Your task to perform on an android device: Go to network settings Image 0: 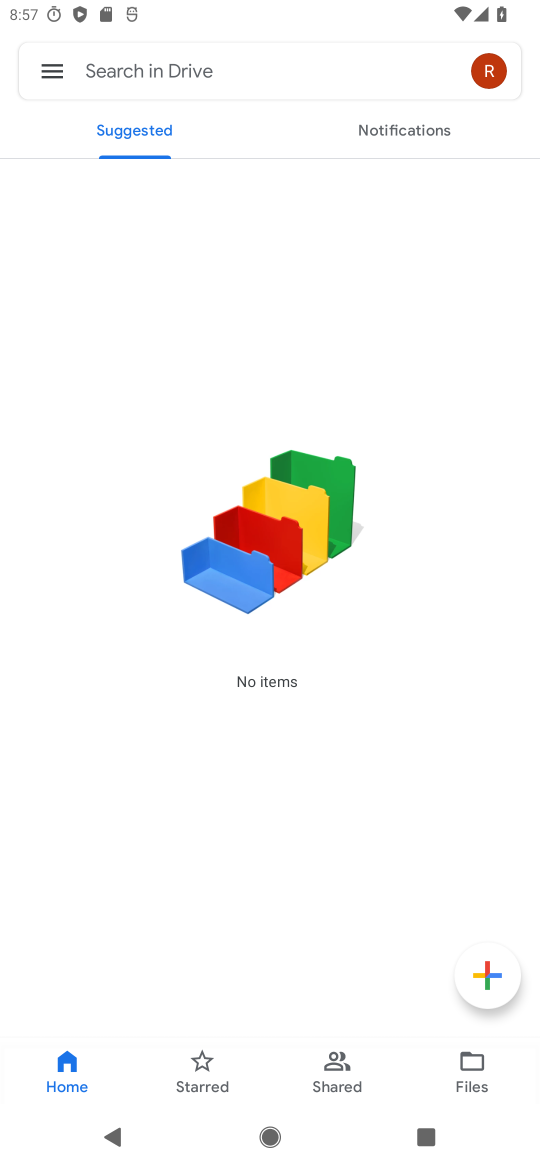
Step 0: press home button
Your task to perform on an android device: Go to network settings Image 1: 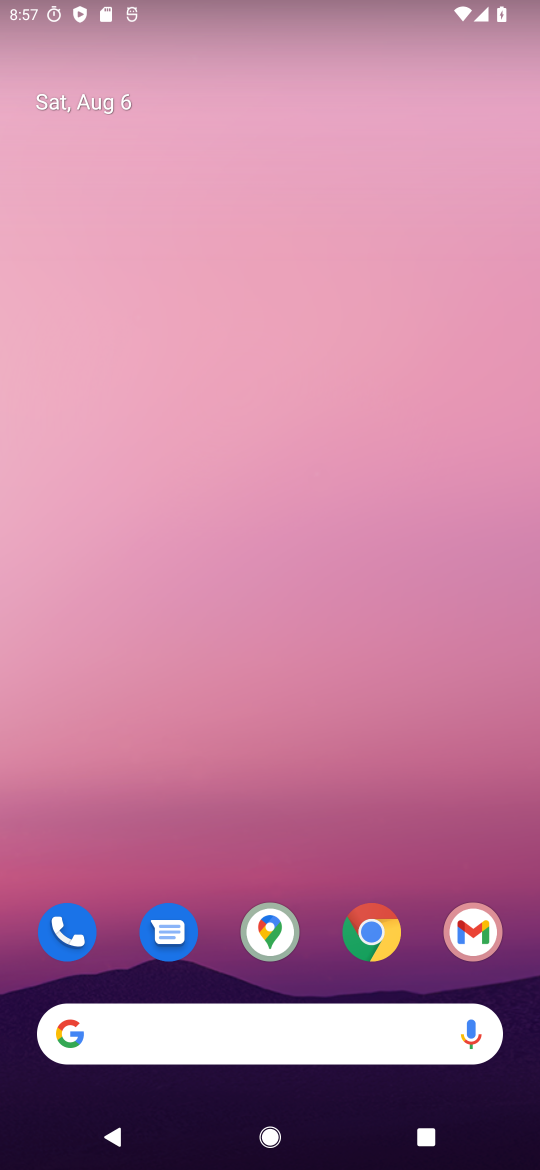
Step 1: drag from (293, 909) to (496, 131)
Your task to perform on an android device: Go to network settings Image 2: 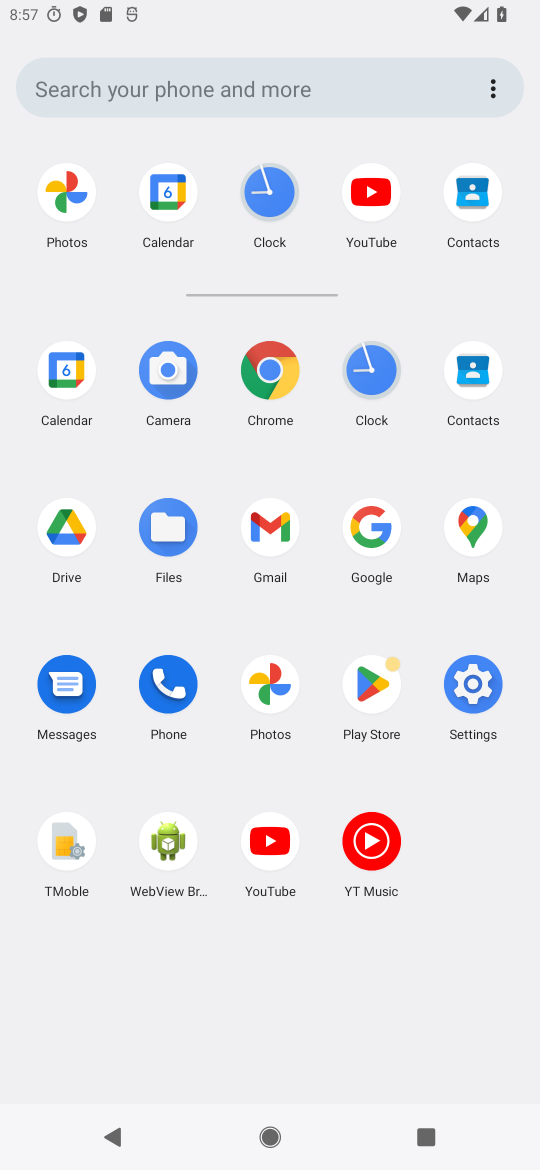
Step 2: click (466, 685)
Your task to perform on an android device: Go to network settings Image 3: 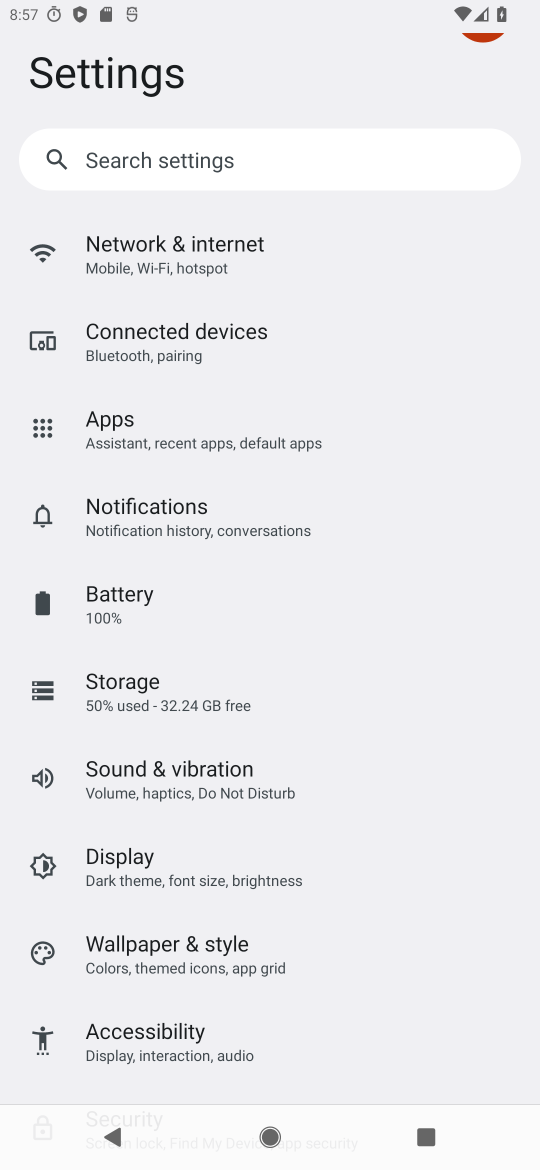
Step 3: click (223, 267)
Your task to perform on an android device: Go to network settings Image 4: 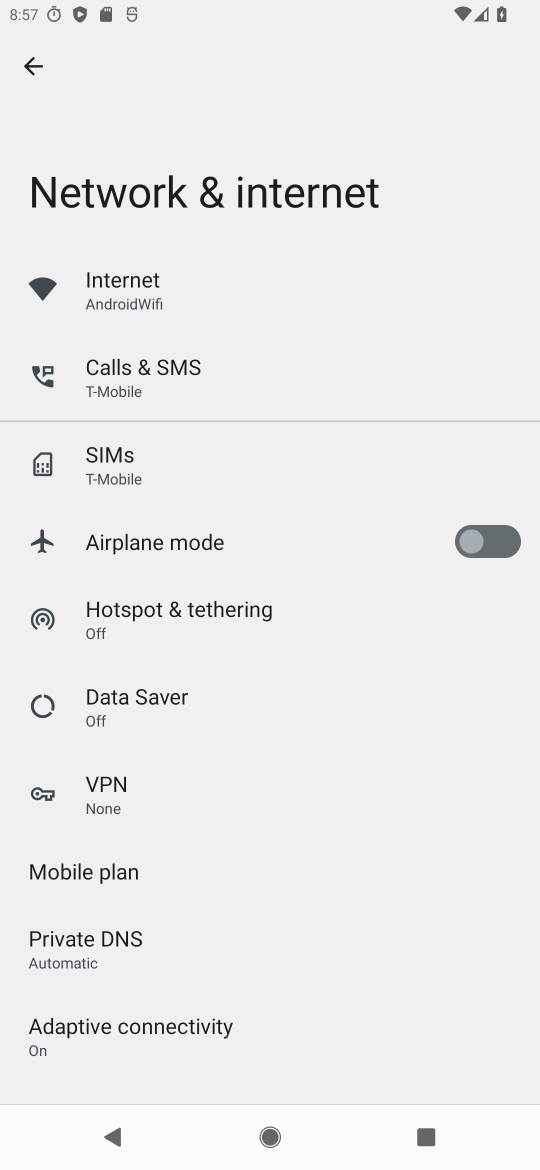
Step 4: click (221, 275)
Your task to perform on an android device: Go to network settings Image 5: 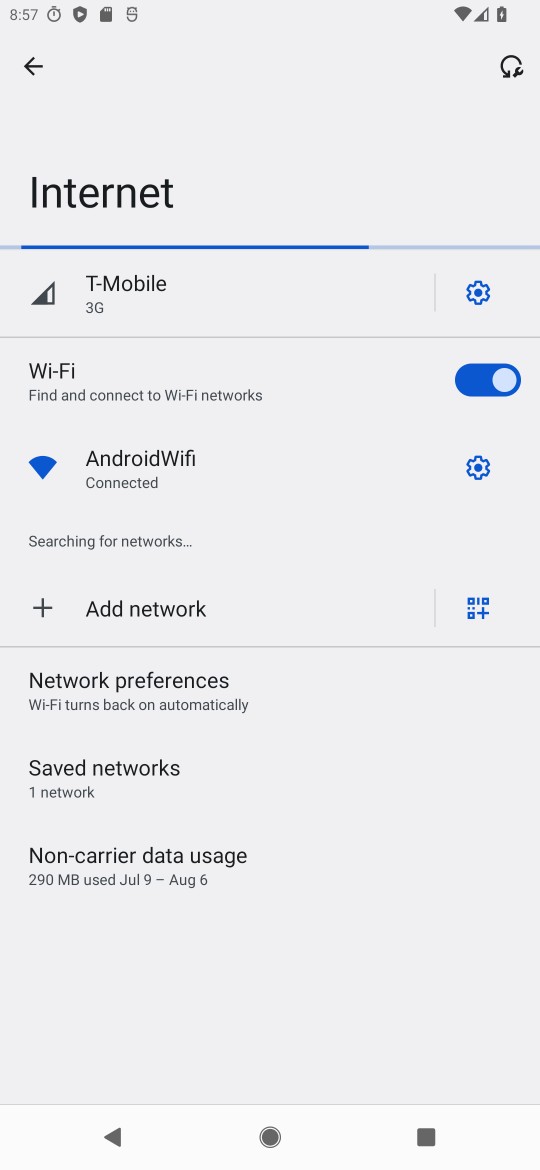
Step 5: click (241, 707)
Your task to perform on an android device: Go to network settings Image 6: 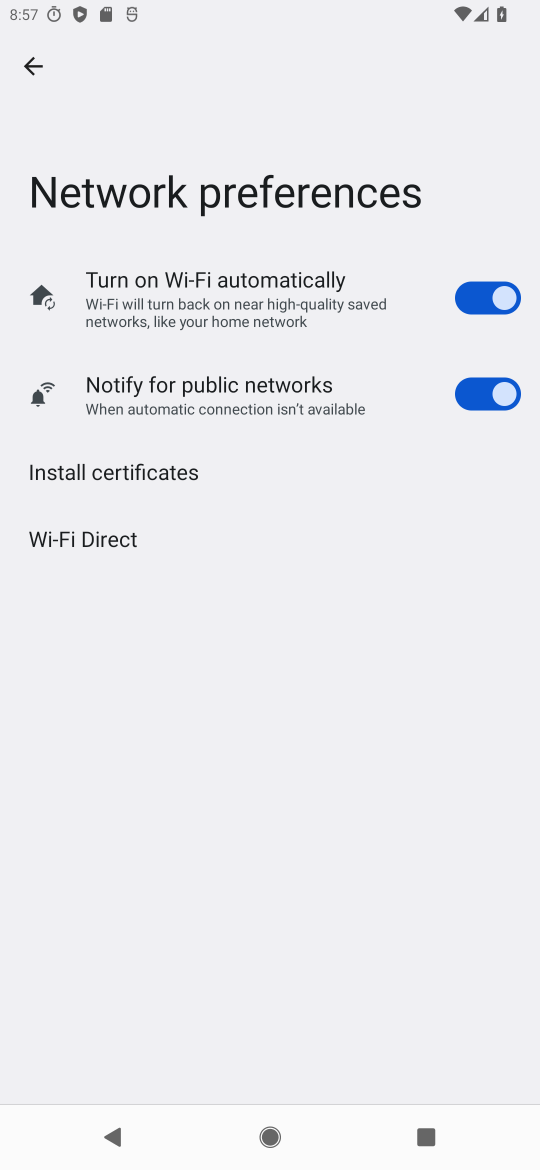
Step 6: task complete